Your task to perform on an android device: Open location settings Image 0: 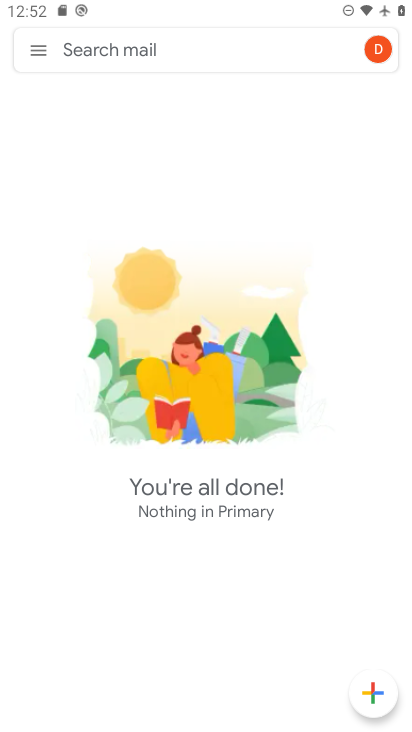
Step 0: press back button
Your task to perform on an android device: Open location settings Image 1: 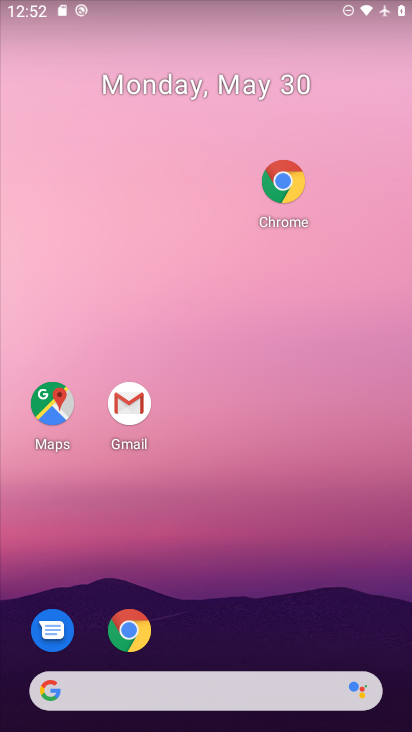
Step 1: drag from (195, 584) to (162, 171)
Your task to perform on an android device: Open location settings Image 2: 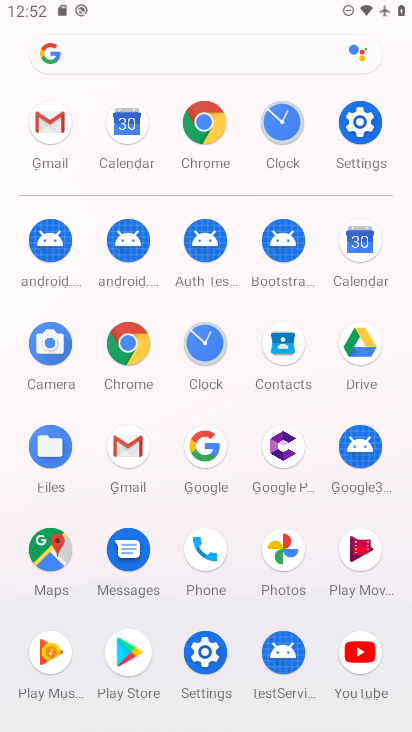
Step 2: click (364, 119)
Your task to perform on an android device: Open location settings Image 3: 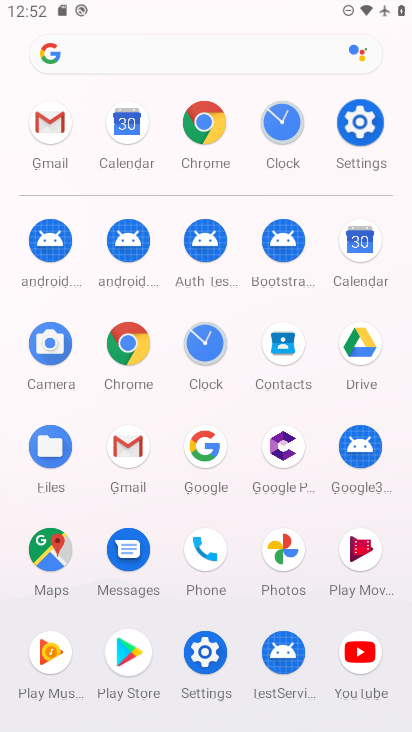
Step 3: click (364, 119)
Your task to perform on an android device: Open location settings Image 4: 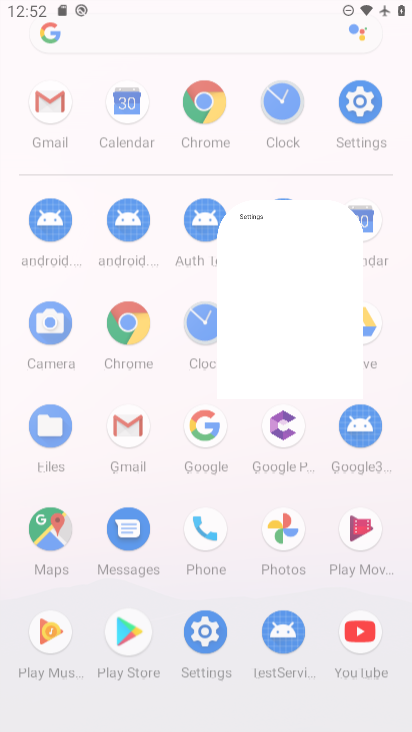
Step 4: click (364, 119)
Your task to perform on an android device: Open location settings Image 5: 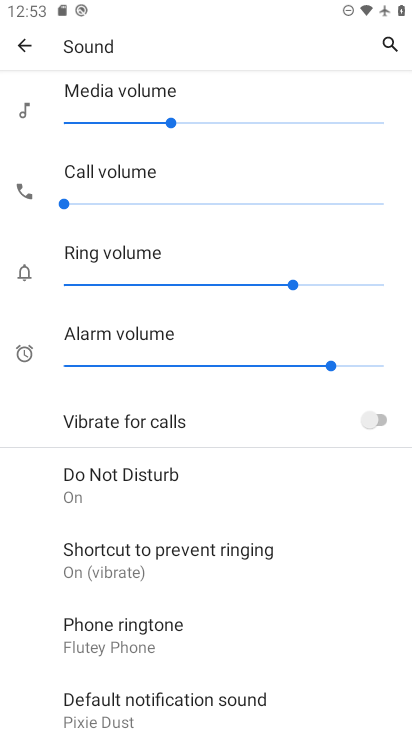
Step 5: click (2, 55)
Your task to perform on an android device: Open location settings Image 6: 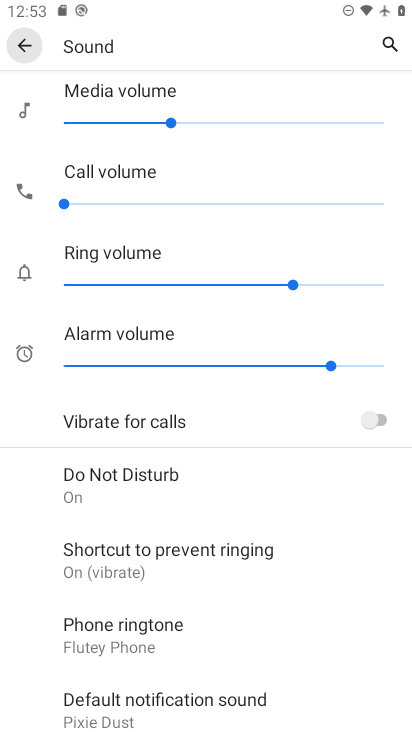
Step 6: click (18, 48)
Your task to perform on an android device: Open location settings Image 7: 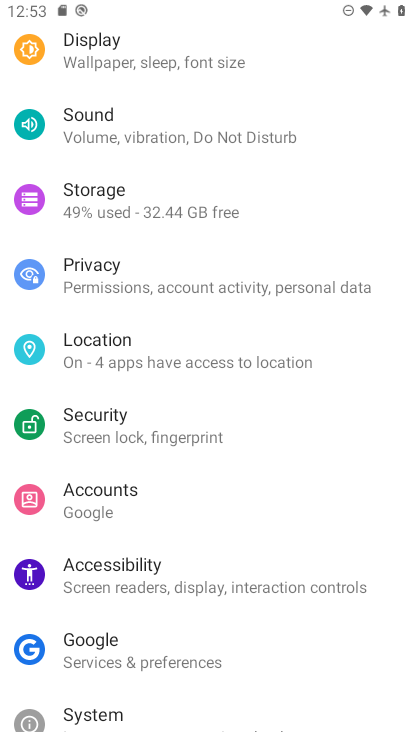
Step 7: click (151, 361)
Your task to perform on an android device: Open location settings Image 8: 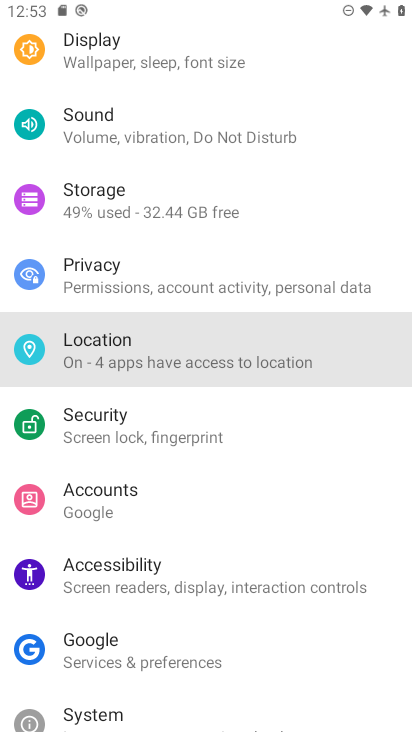
Step 8: click (150, 362)
Your task to perform on an android device: Open location settings Image 9: 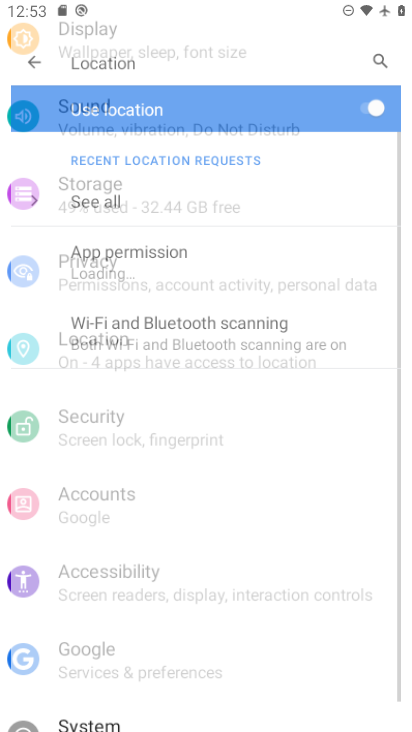
Step 9: click (150, 362)
Your task to perform on an android device: Open location settings Image 10: 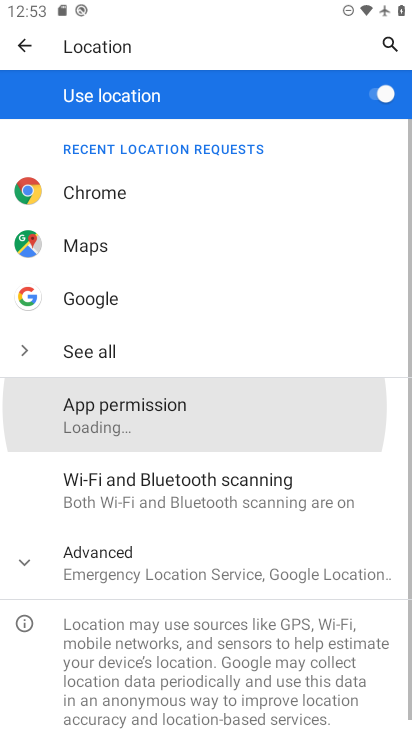
Step 10: click (150, 362)
Your task to perform on an android device: Open location settings Image 11: 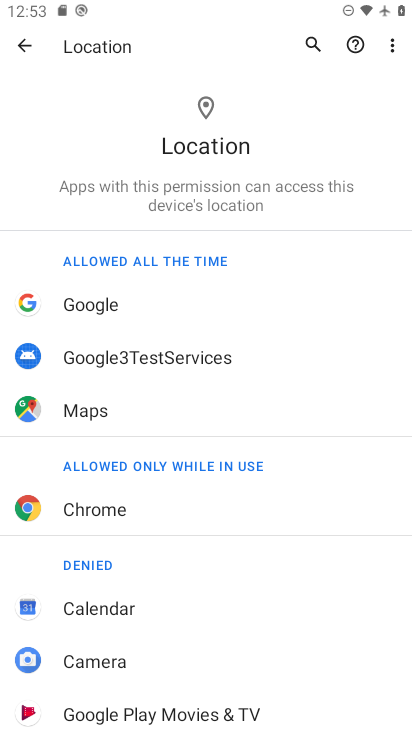
Step 11: click (20, 45)
Your task to perform on an android device: Open location settings Image 12: 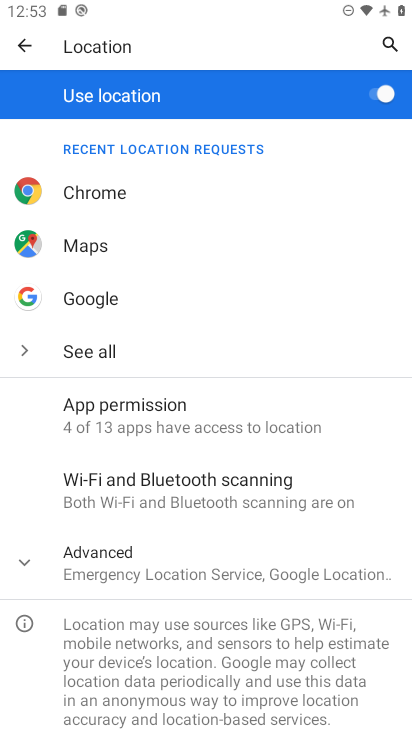
Step 12: task complete